Your task to perform on an android device: Is it going to rain tomorrow? Image 0: 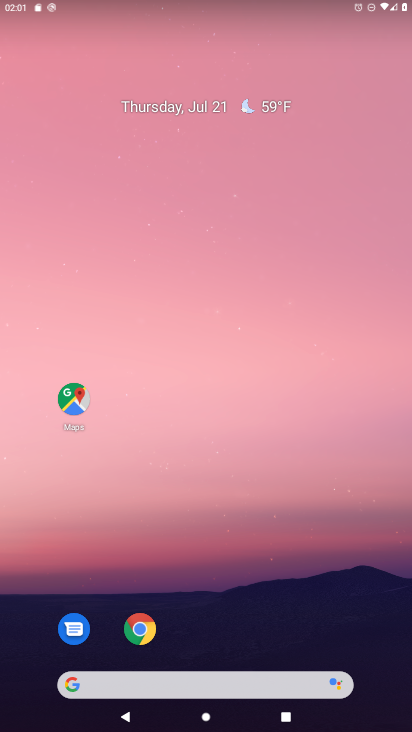
Step 0: click (260, 110)
Your task to perform on an android device: Is it going to rain tomorrow? Image 1: 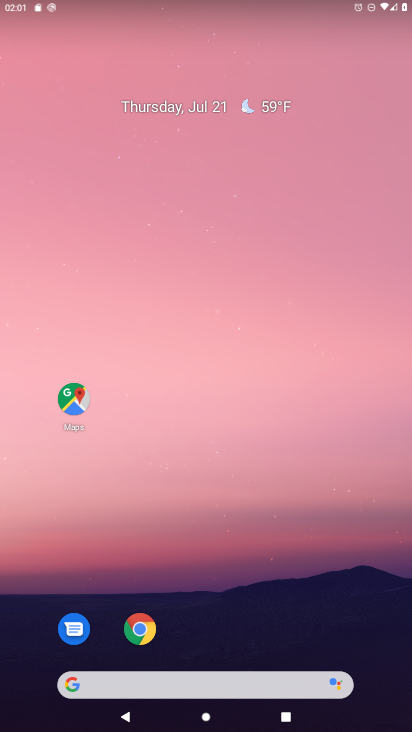
Step 1: drag from (5, 296) to (370, 303)
Your task to perform on an android device: Is it going to rain tomorrow? Image 2: 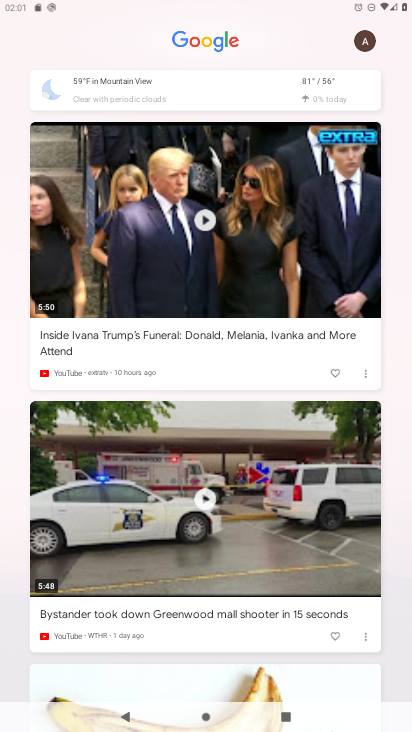
Step 2: click (316, 80)
Your task to perform on an android device: Is it going to rain tomorrow? Image 3: 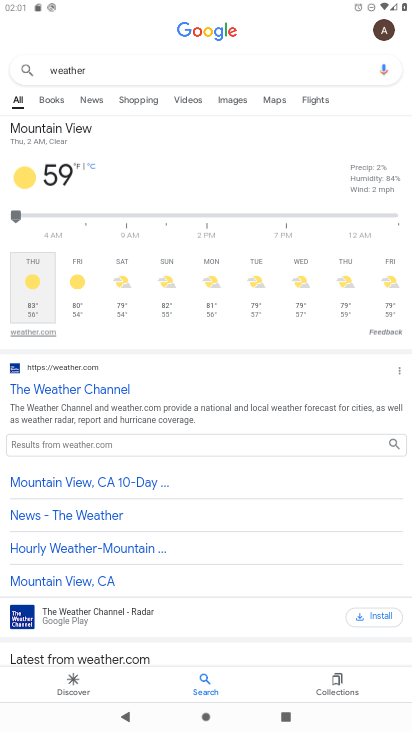
Step 3: task complete